Your task to perform on an android device: open app "WhatsApp Messenger" Image 0: 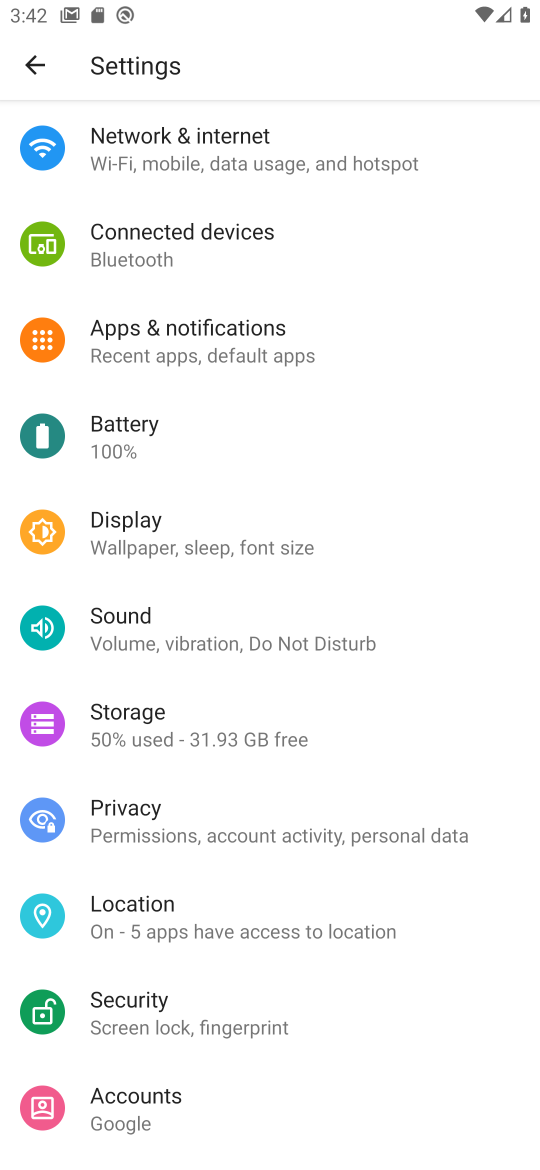
Step 0: press home button
Your task to perform on an android device: open app "WhatsApp Messenger" Image 1: 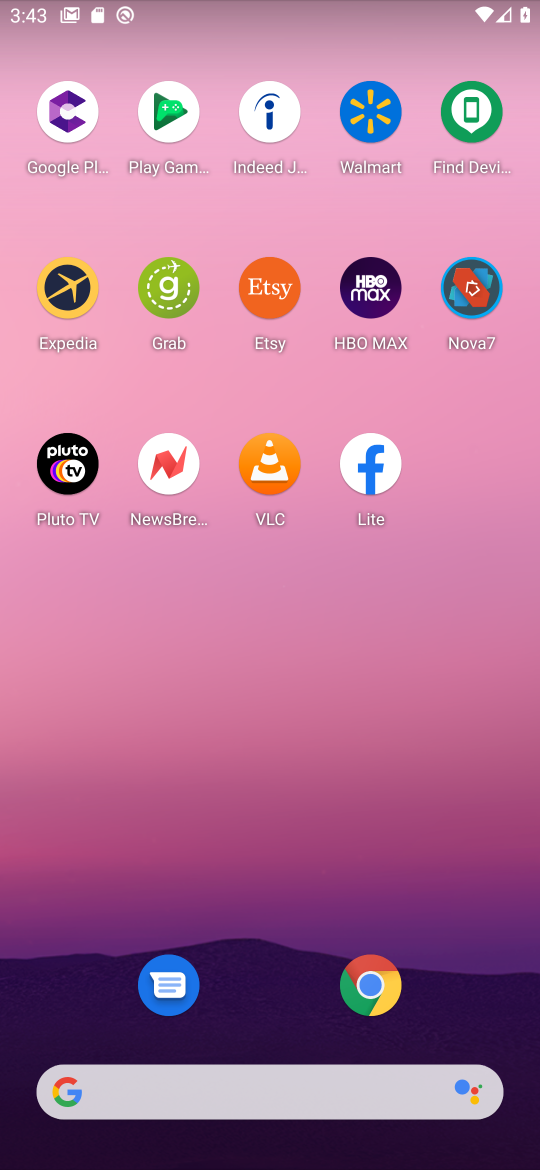
Step 1: drag from (277, 865) to (333, 0)
Your task to perform on an android device: open app "WhatsApp Messenger" Image 2: 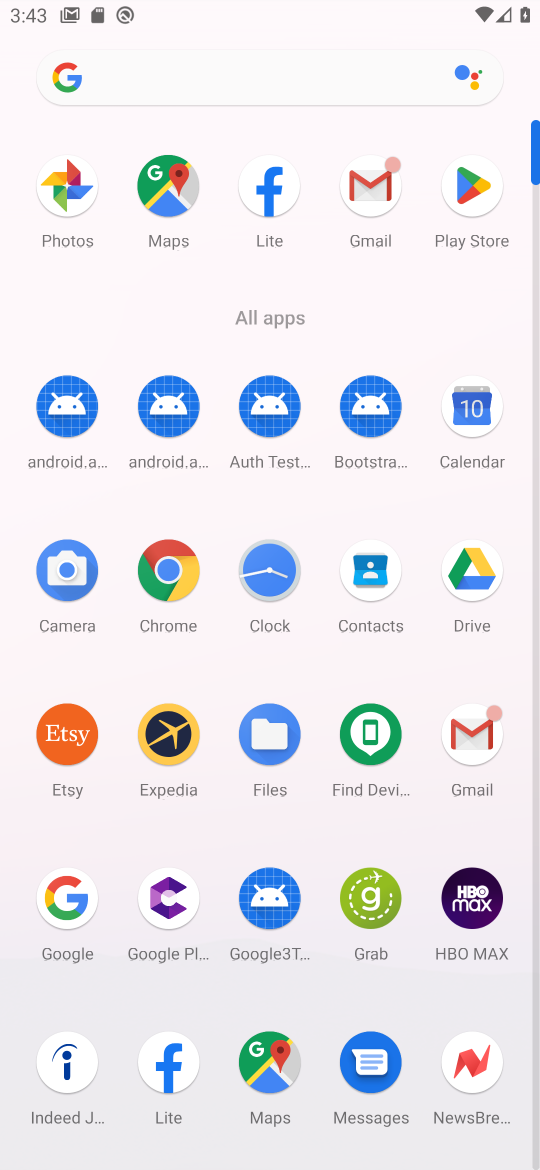
Step 2: click (469, 193)
Your task to perform on an android device: open app "WhatsApp Messenger" Image 3: 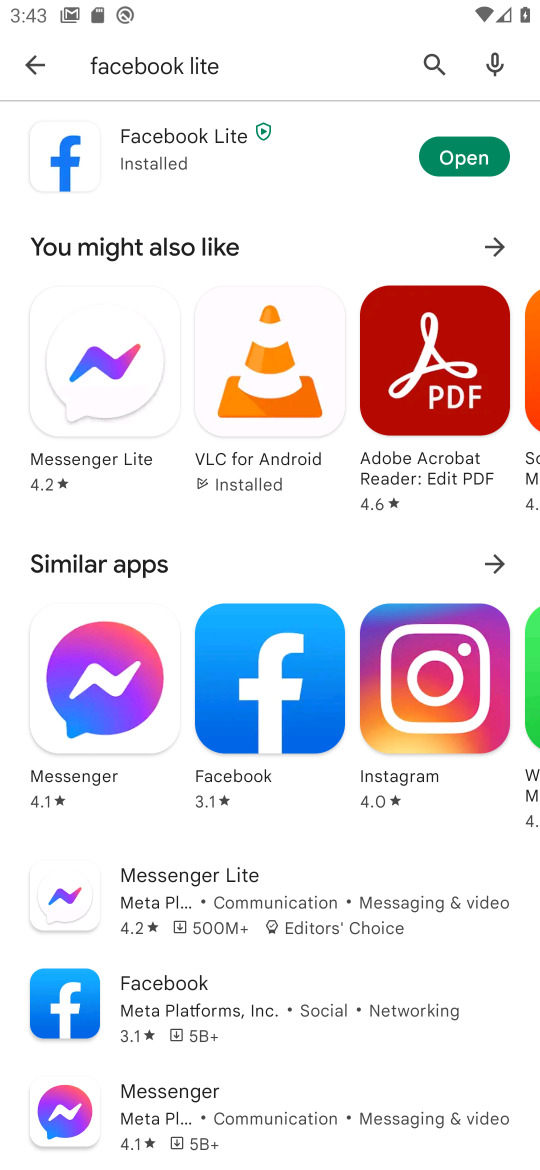
Step 3: click (33, 61)
Your task to perform on an android device: open app "WhatsApp Messenger" Image 4: 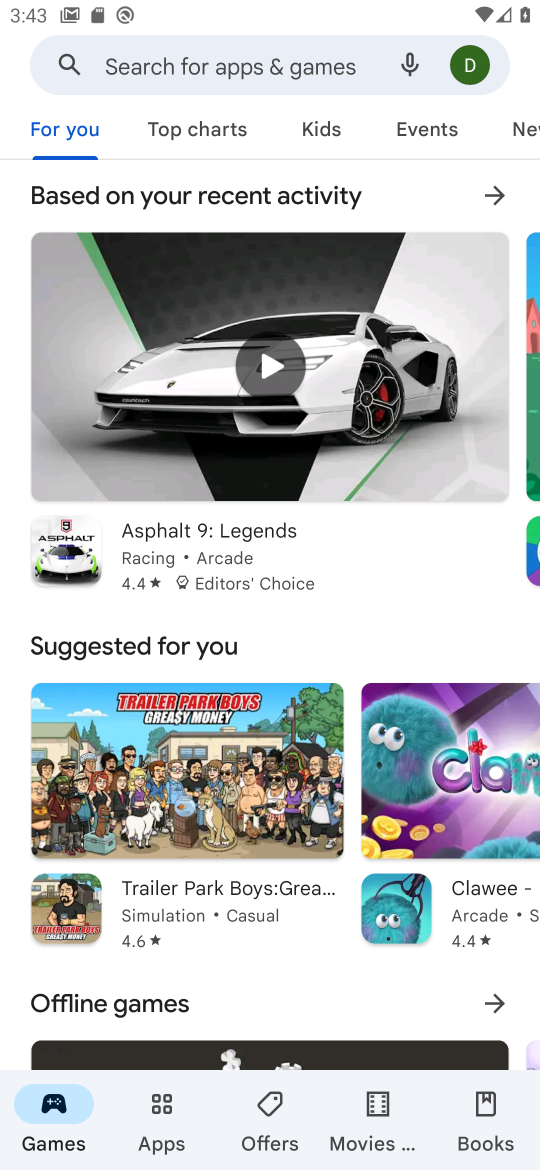
Step 4: click (151, 63)
Your task to perform on an android device: open app "WhatsApp Messenger" Image 5: 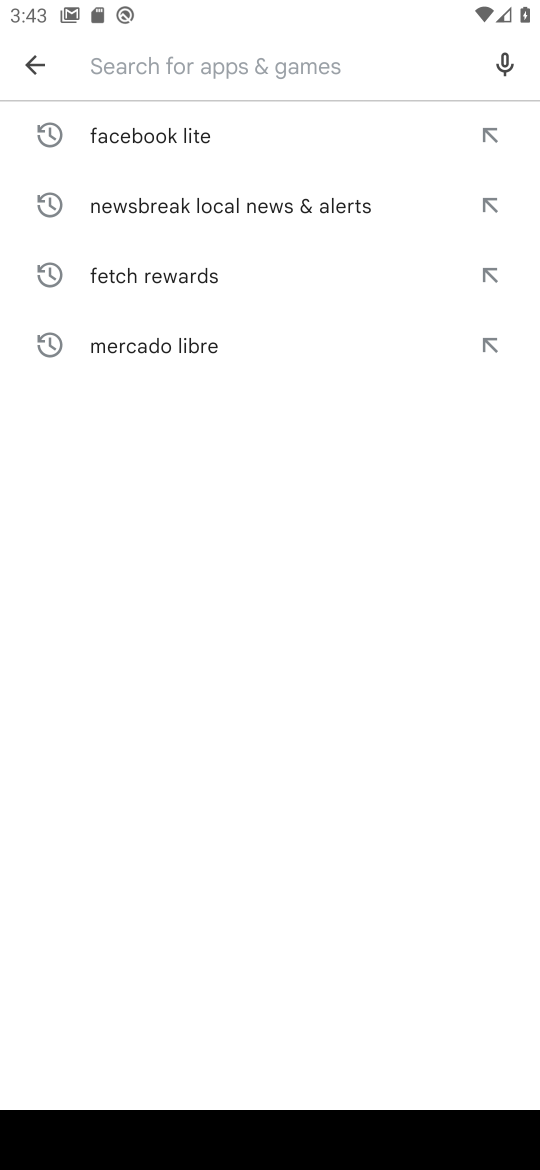
Step 5: type "WhatsApp Messenger"
Your task to perform on an android device: open app "WhatsApp Messenger" Image 6: 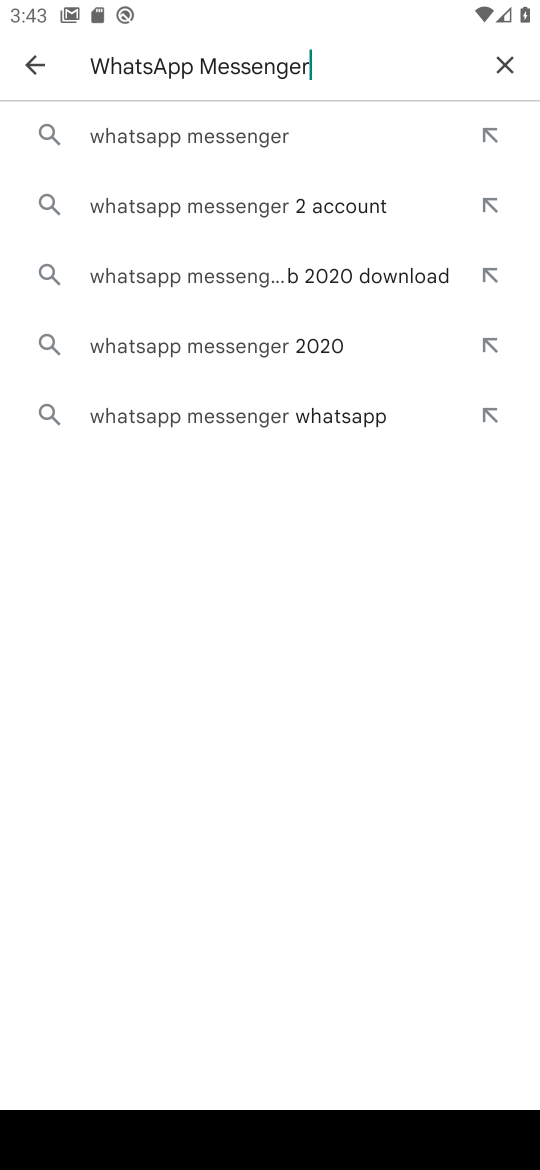
Step 6: click (182, 132)
Your task to perform on an android device: open app "WhatsApp Messenger" Image 7: 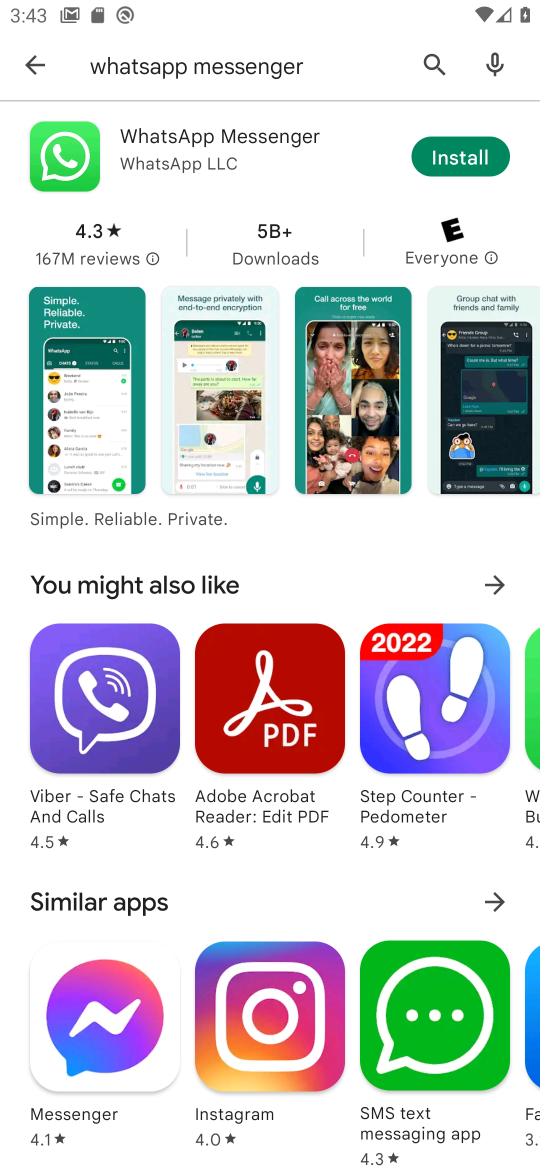
Step 7: click (460, 151)
Your task to perform on an android device: open app "WhatsApp Messenger" Image 8: 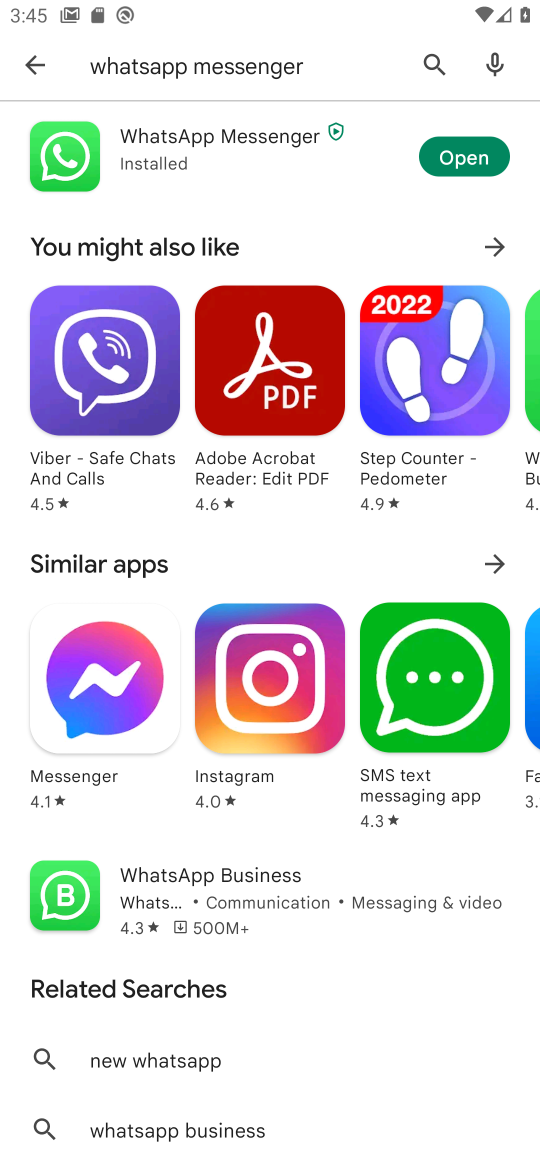
Step 8: click (461, 166)
Your task to perform on an android device: open app "WhatsApp Messenger" Image 9: 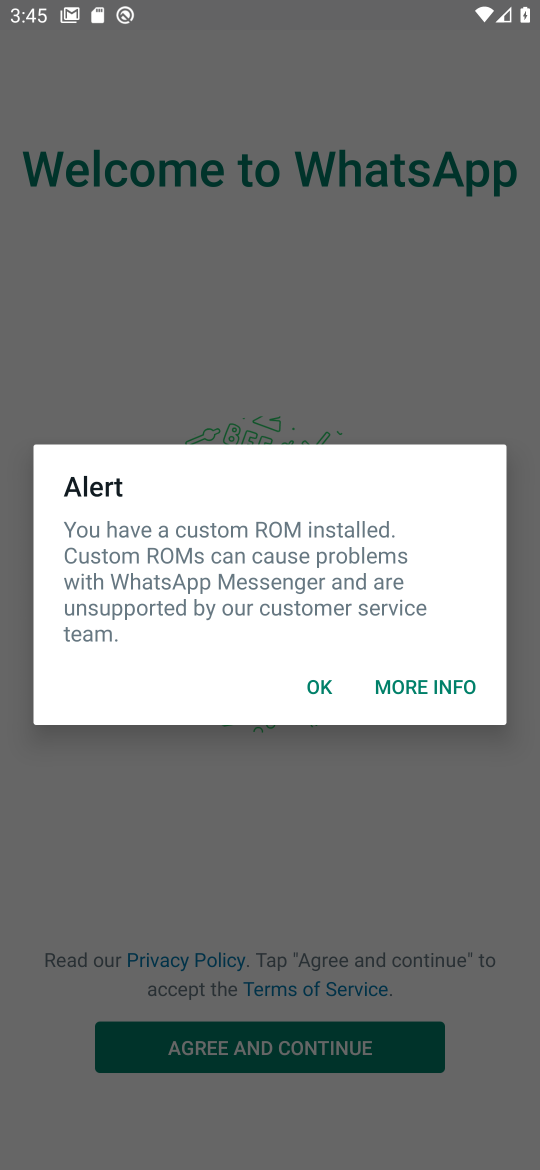
Step 9: click (316, 680)
Your task to perform on an android device: open app "WhatsApp Messenger" Image 10: 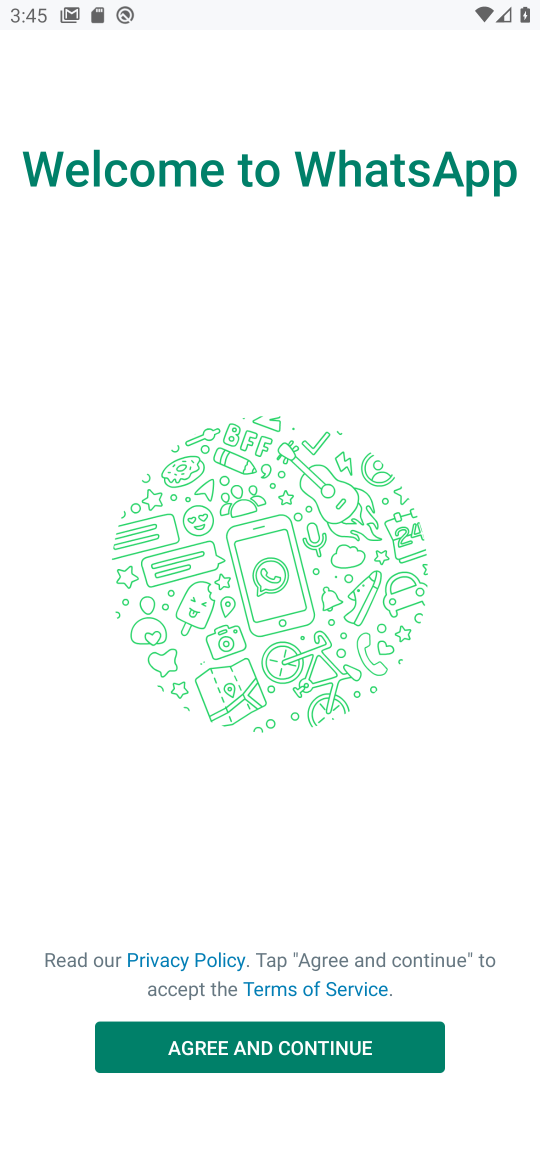
Step 10: click (284, 1042)
Your task to perform on an android device: open app "WhatsApp Messenger" Image 11: 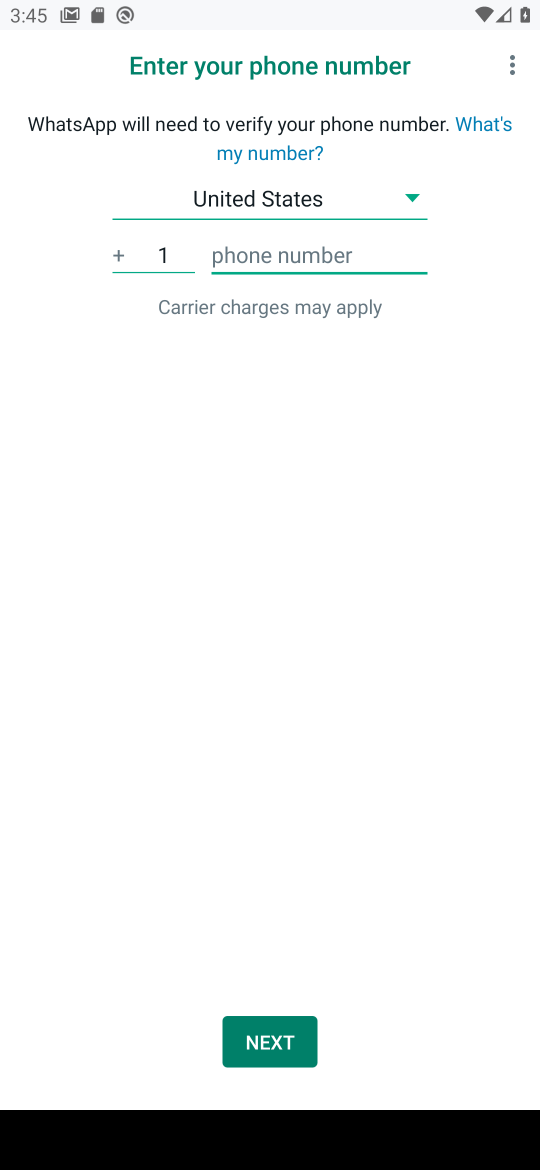
Step 11: task complete